Your task to perform on an android device: turn off wifi Image 0: 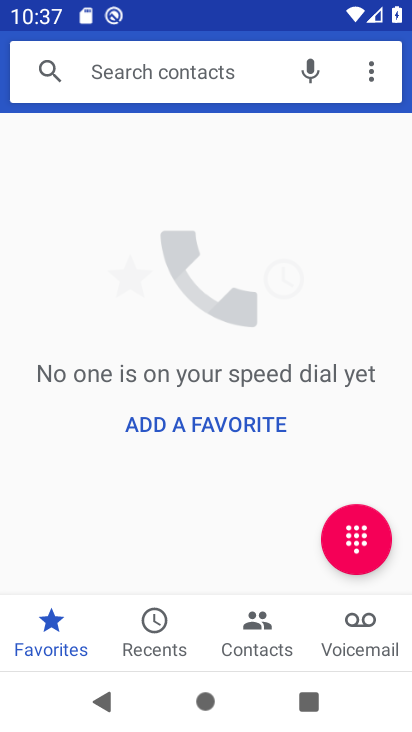
Step 0: press home button
Your task to perform on an android device: turn off wifi Image 1: 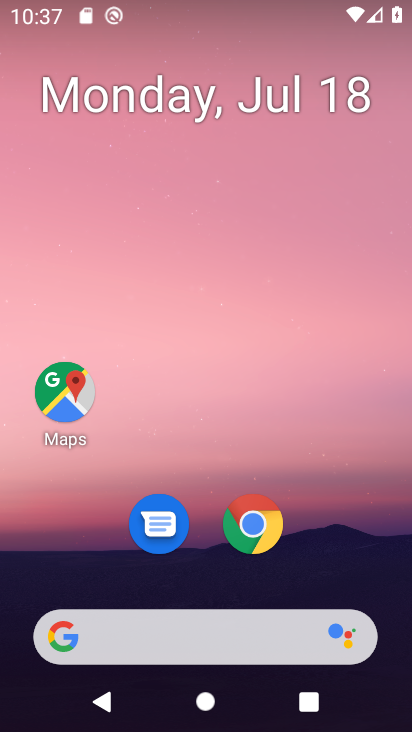
Step 1: drag from (298, 582) to (300, 36)
Your task to perform on an android device: turn off wifi Image 2: 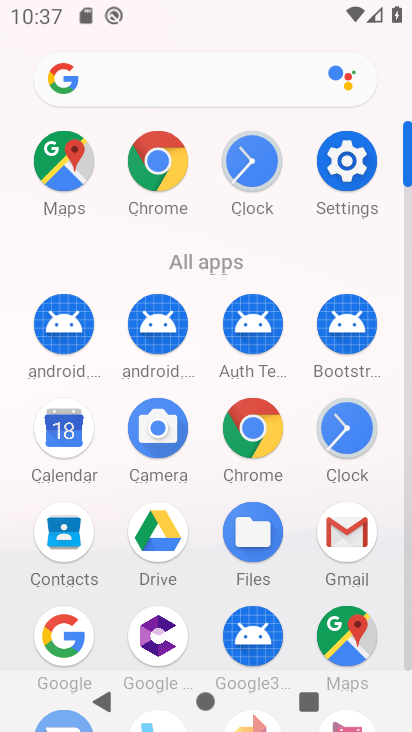
Step 2: click (343, 158)
Your task to perform on an android device: turn off wifi Image 3: 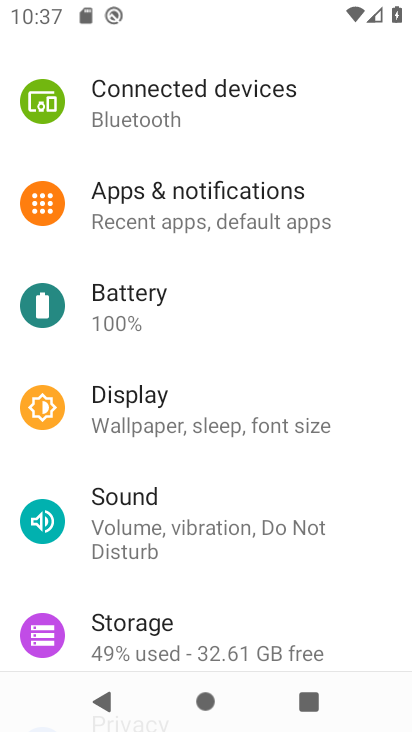
Step 3: drag from (215, 311) to (219, 670)
Your task to perform on an android device: turn off wifi Image 4: 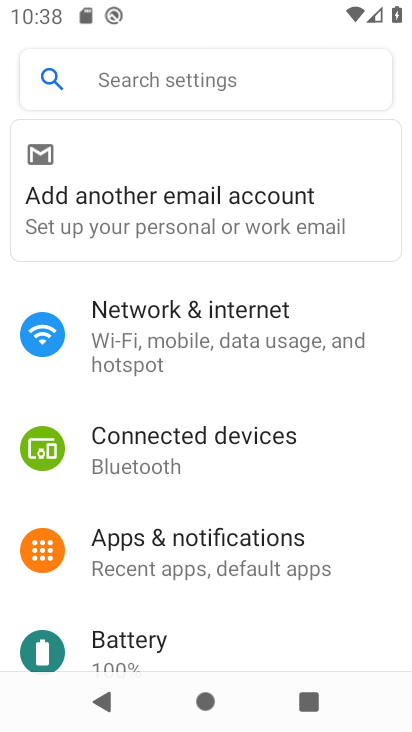
Step 4: click (248, 344)
Your task to perform on an android device: turn off wifi Image 5: 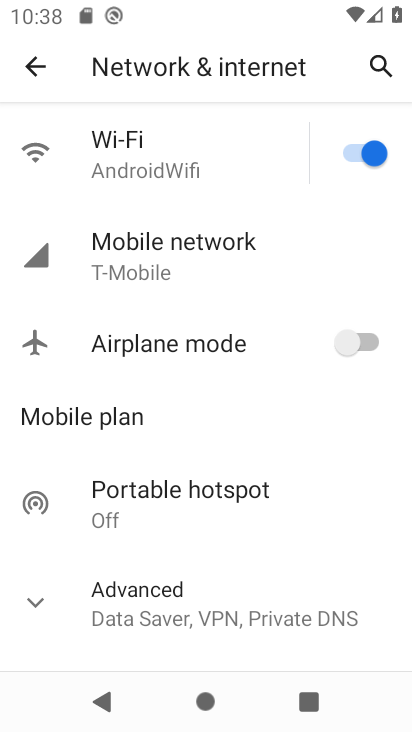
Step 5: click (365, 146)
Your task to perform on an android device: turn off wifi Image 6: 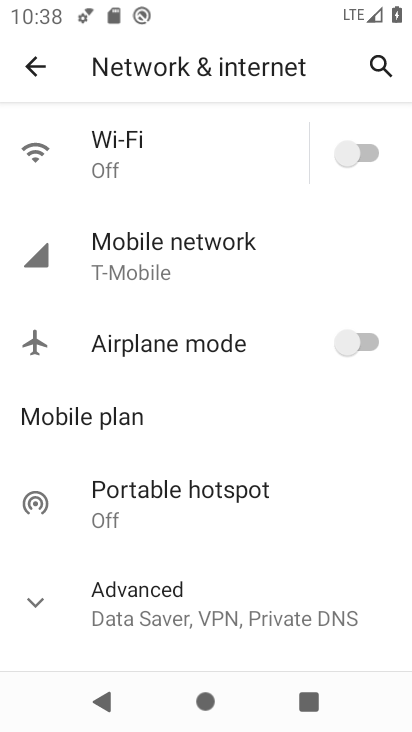
Step 6: task complete